Your task to perform on an android device: Open Chrome and go to settings Image 0: 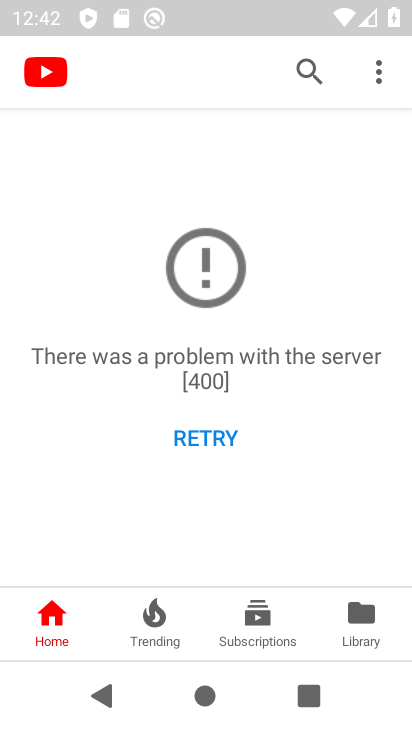
Step 0: press home button
Your task to perform on an android device: Open Chrome and go to settings Image 1: 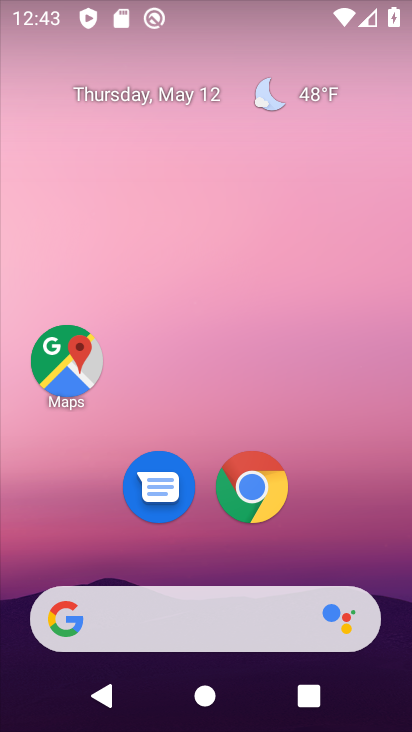
Step 1: drag from (265, 572) to (294, 289)
Your task to perform on an android device: Open Chrome and go to settings Image 2: 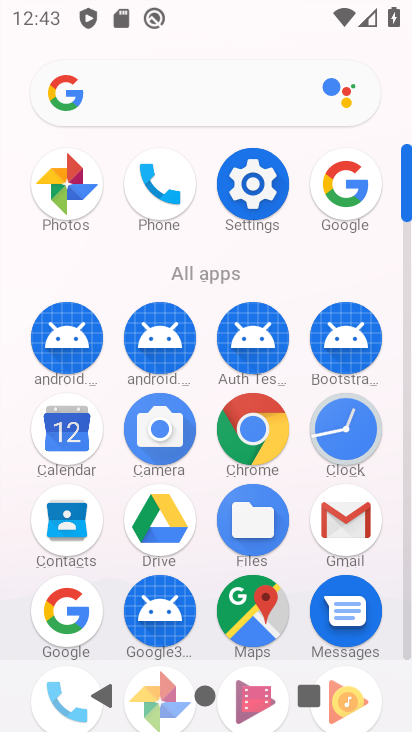
Step 2: click (261, 445)
Your task to perform on an android device: Open Chrome and go to settings Image 3: 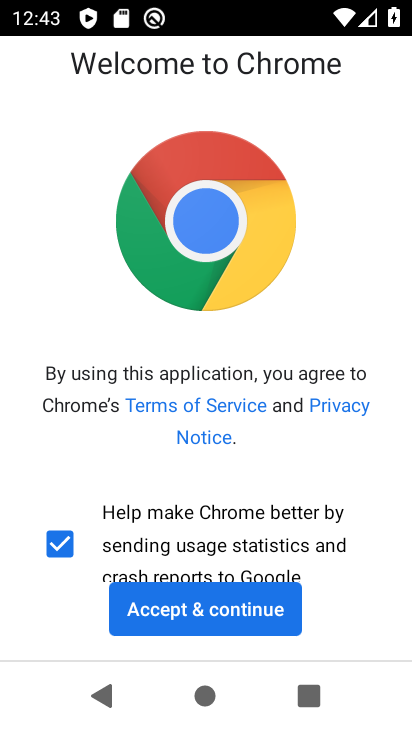
Step 3: click (150, 614)
Your task to perform on an android device: Open Chrome and go to settings Image 4: 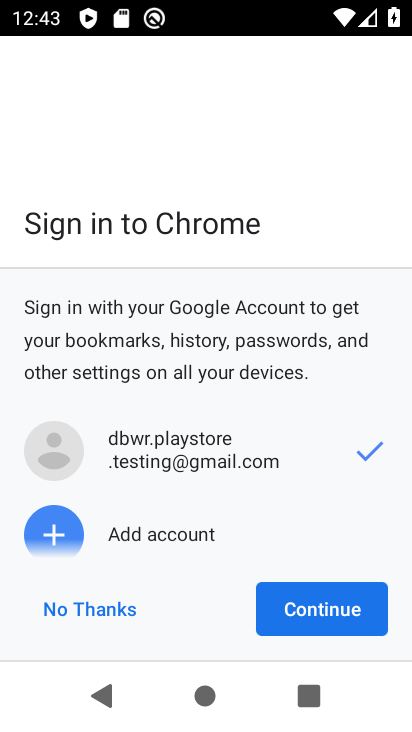
Step 4: click (367, 599)
Your task to perform on an android device: Open Chrome and go to settings Image 5: 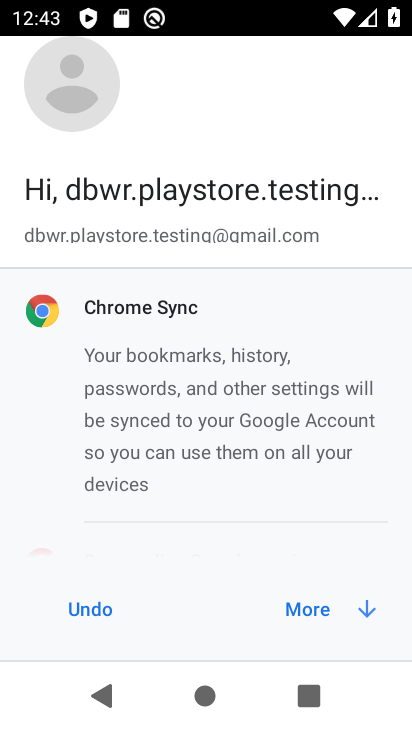
Step 5: click (352, 603)
Your task to perform on an android device: Open Chrome and go to settings Image 6: 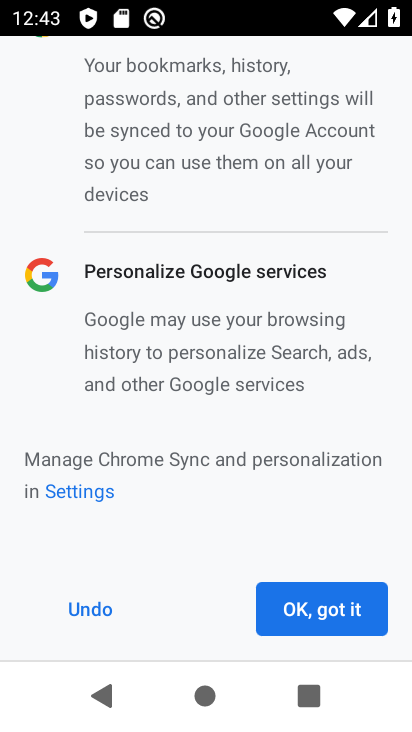
Step 6: click (352, 603)
Your task to perform on an android device: Open Chrome and go to settings Image 7: 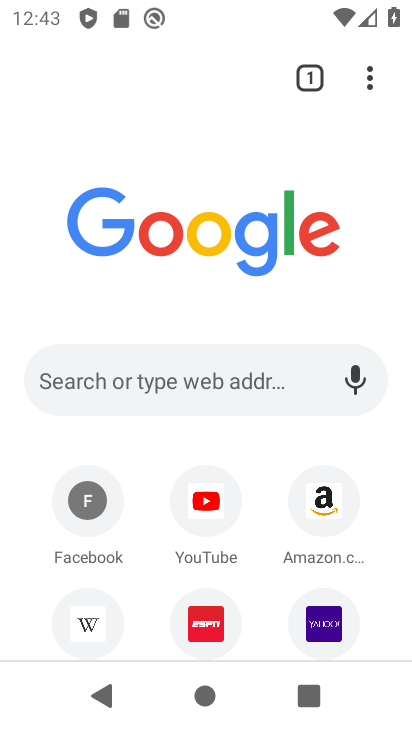
Step 7: click (373, 81)
Your task to perform on an android device: Open Chrome and go to settings Image 8: 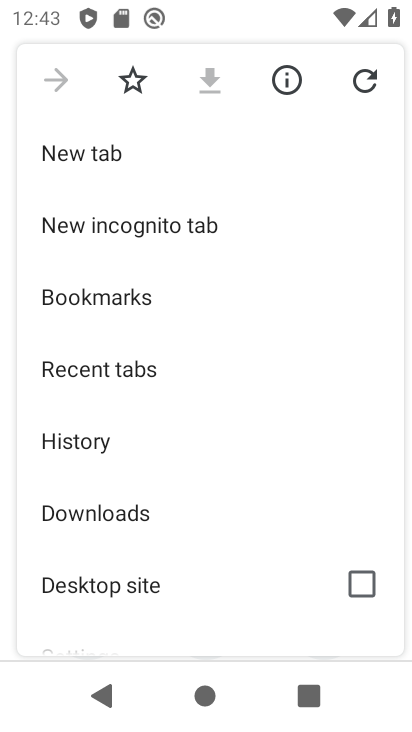
Step 8: drag from (211, 500) to (189, 213)
Your task to perform on an android device: Open Chrome and go to settings Image 9: 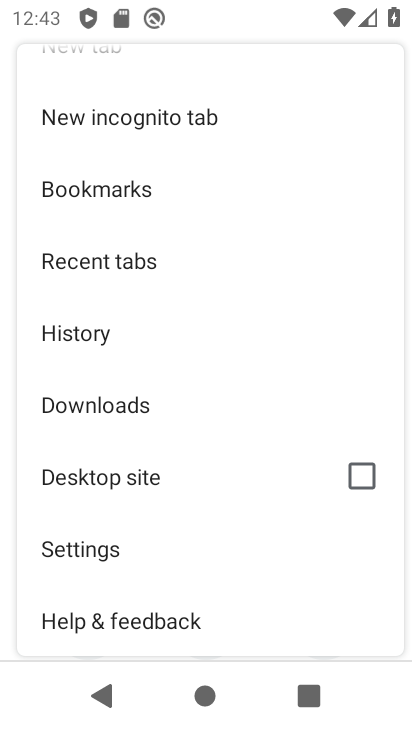
Step 9: drag from (204, 457) to (242, 223)
Your task to perform on an android device: Open Chrome and go to settings Image 10: 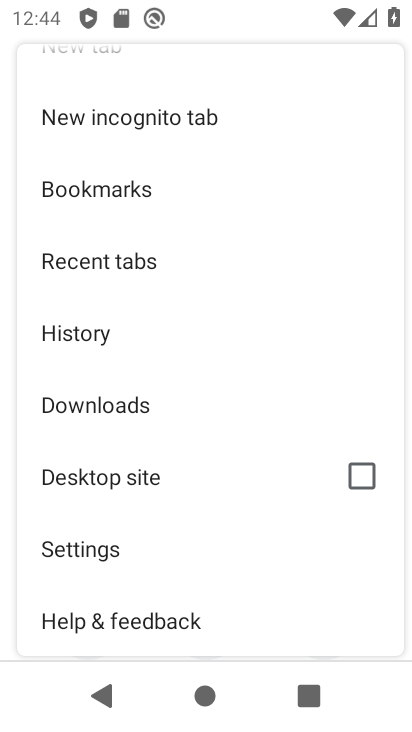
Step 10: click (126, 544)
Your task to perform on an android device: Open Chrome and go to settings Image 11: 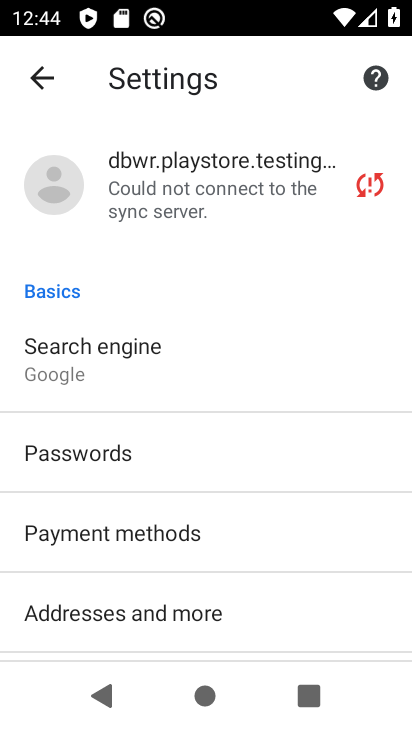
Step 11: task complete